Your task to perform on an android device: show emergency info Image 0: 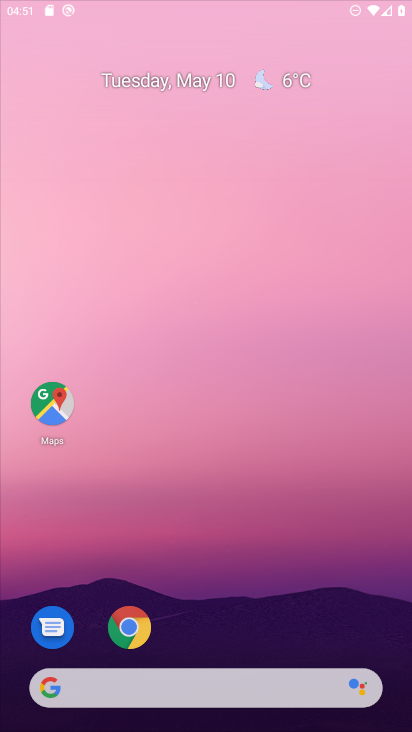
Step 0: click (220, 709)
Your task to perform on an android device: show emergency info Image 1: 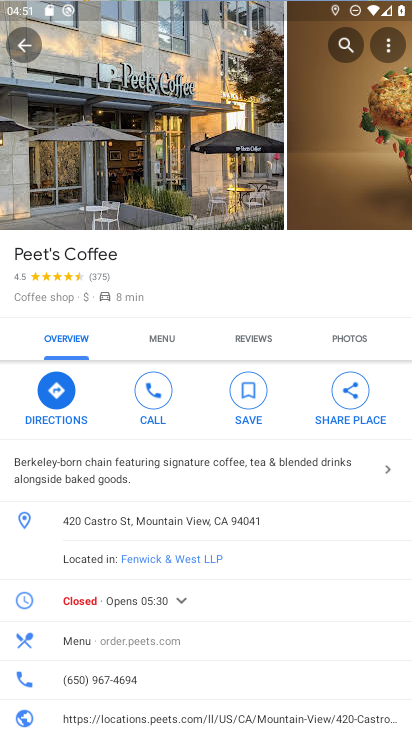
Step 1: press home button
Your task to perform on an android device: show emergency info Image 2: 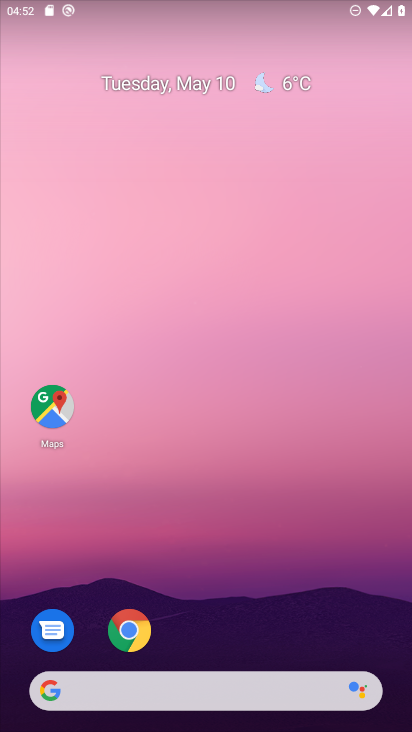
Step 2: drag from (211, 647) to (230, 431)
Your task to perform on an android device: show emergency info Image 3: 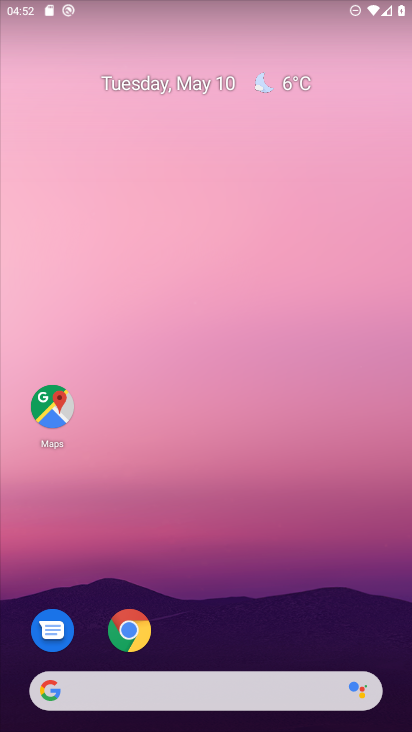
Step 3: drag from (200, 619) to (244, 379)
Your task to perform on an android device: show emergency info Image 4: 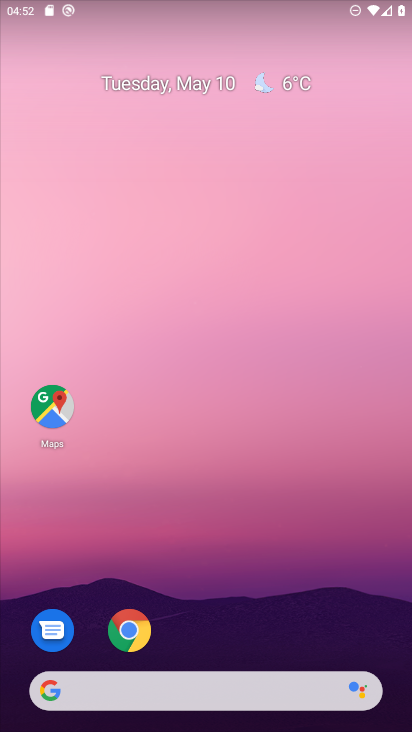
Step 4: drag from (181, 598) to (299, 54)
Your task to perform on an android device: show emergency info Image 5: 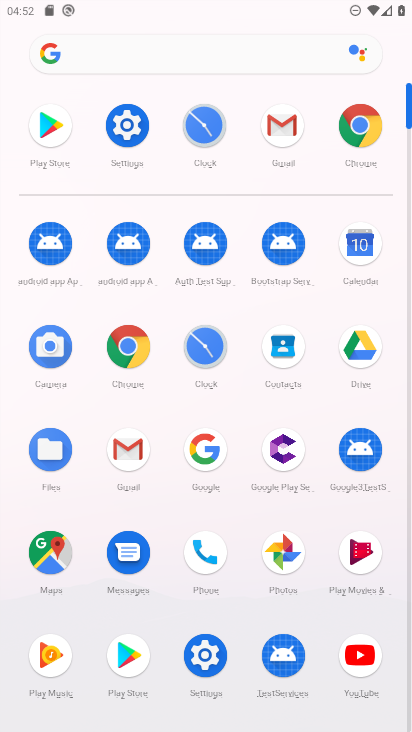
Step 5: click (209, 648)
Your task to perform on an android device: show emergency info Image 6: 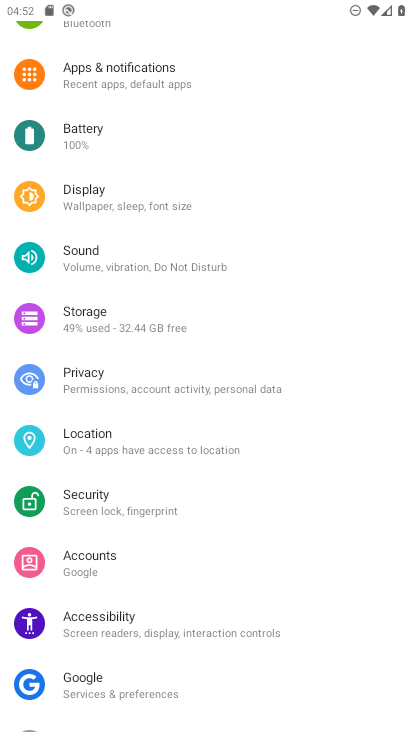
Step 6: drag from (144, 695) to (190, 207)
Your task to perform on an android device: show emergency info Image 7: 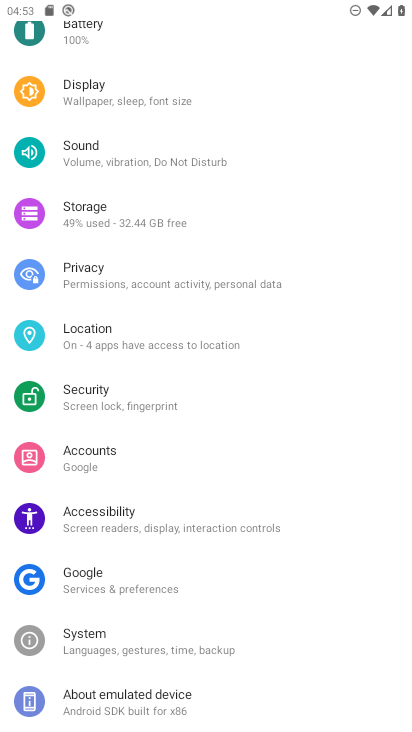
Step 7: click (103, 693)
Your task to perform on an android device: show emergency info Image 8: 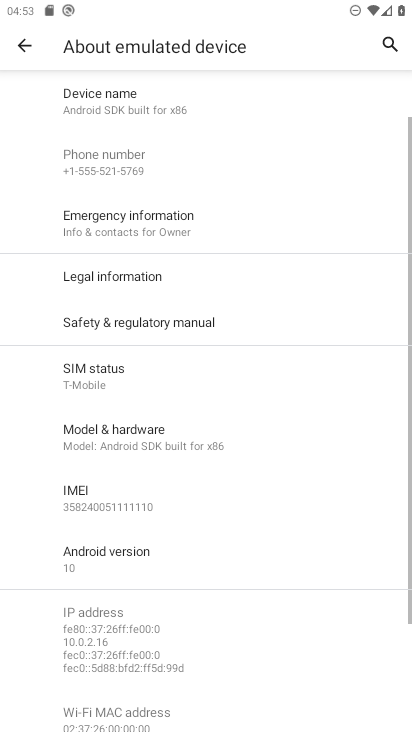
Step 8: click (167, 75)
Your task to perform on an android device: show emergency info Image 9: 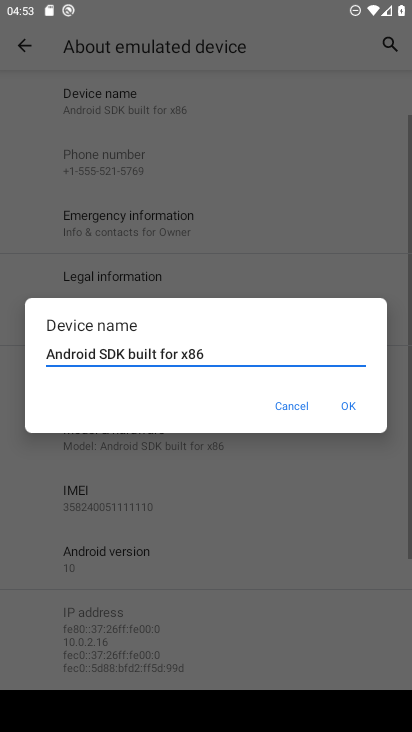
Step 9: task complete